Your task to perform on an android device: Open notification settings Image 0: 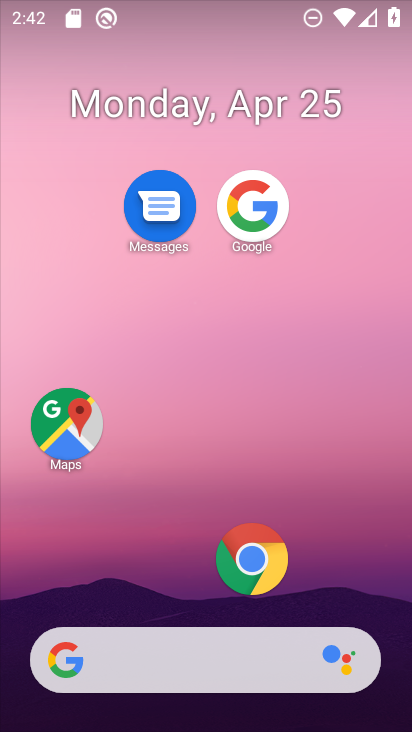
Step 0: drag from (181, 576) to (171, 95)
Your task to perform on an android device: Open notification settings Image 1: 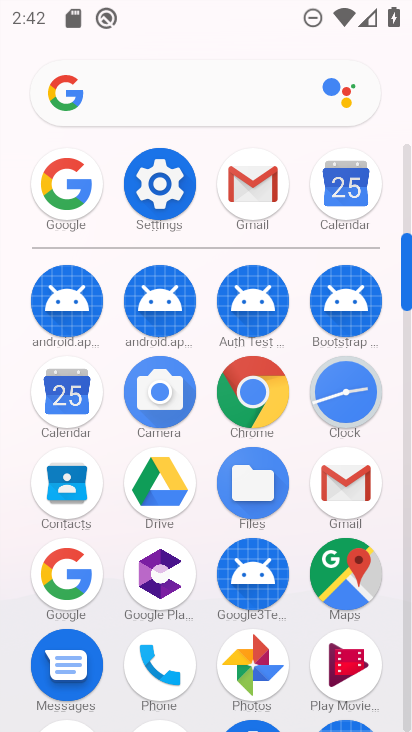
Step 1: click (159, 184)
Your task to perform on an android device: Open notification settings Image 2: 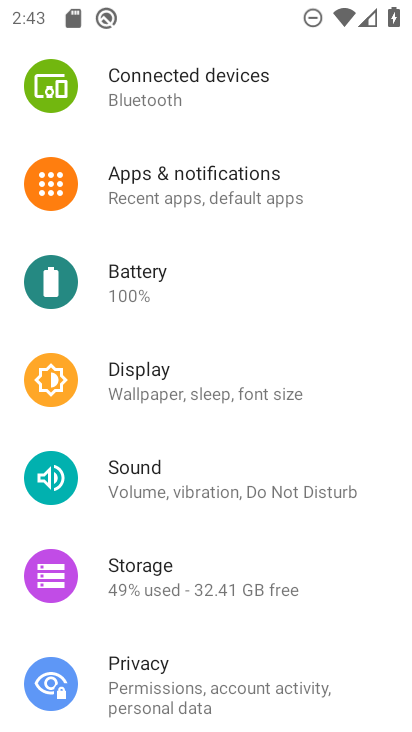
Step 2: click (185, 181)
Your task to perform on an android device: Open notification settings Image 3: 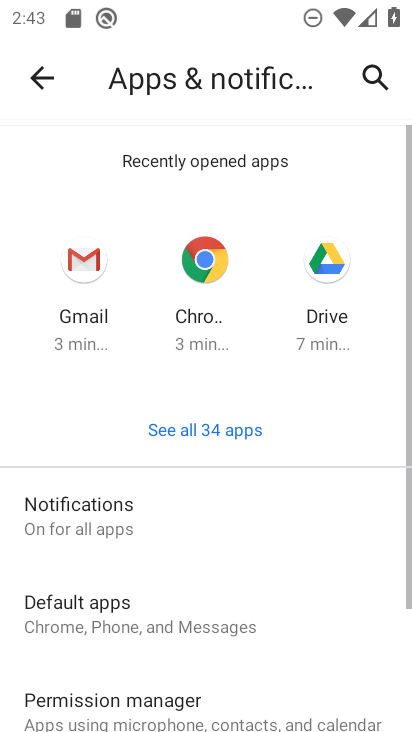
Step 3: click (100, 522)
Your task to perform on an android device: Open notification settings Image 4: 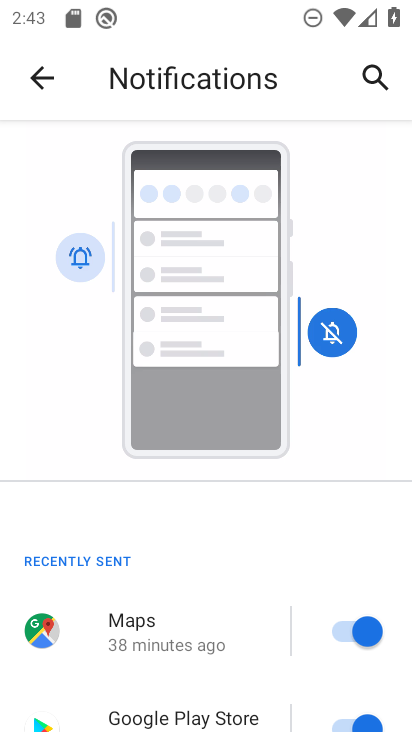
Step 4: task complete